Your task to perform on an android device: Open calendar and show me the fourth week of next month Image 0: 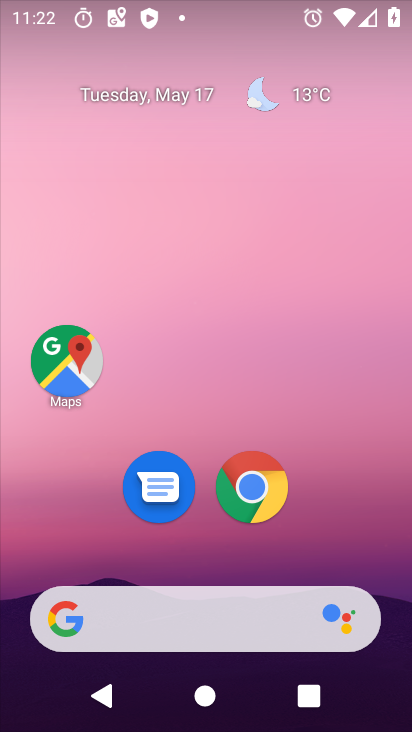
Step 0: drag from (224, 726) to (226, 73)
Your task to perform on an android device: Open calendar and show me the fourth week of next month Image 1: 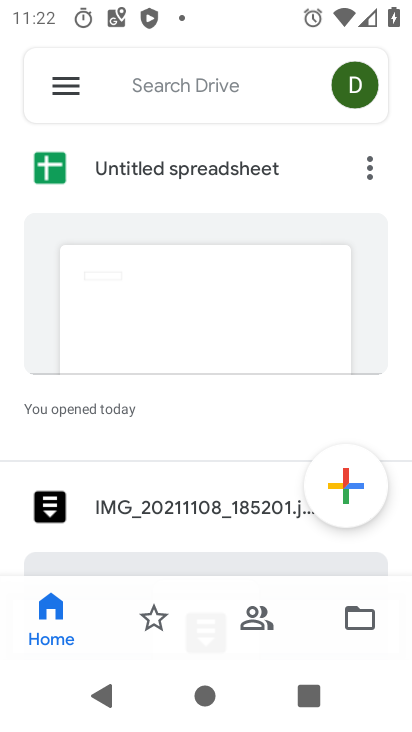
Step 1: press home button
Your task to perform on an android device: Open calendar and show me the fourth week of next month Image 2: 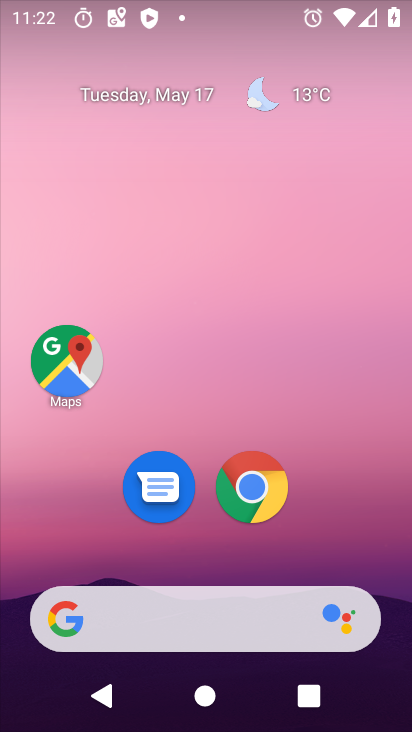
Step 2: drag from (220, 724) to (220, 118)
Your task to perform on an android device: Open calendar and show me the fourth week of next month Image 3: 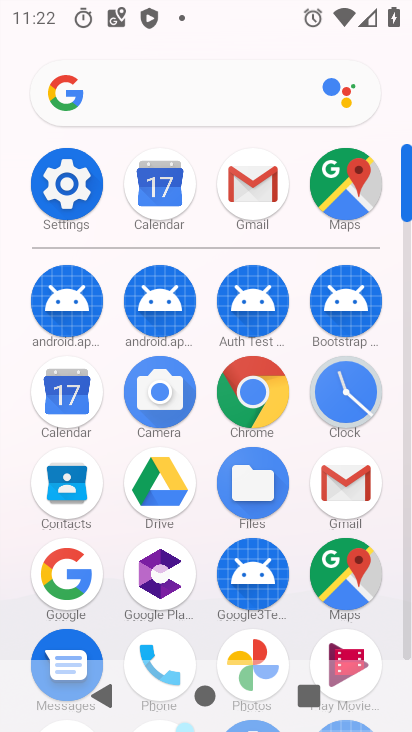
Step 3: click (57, 404)
Your task to perform on an android device: Open calendar and show me the fourth week of next month Image 4: 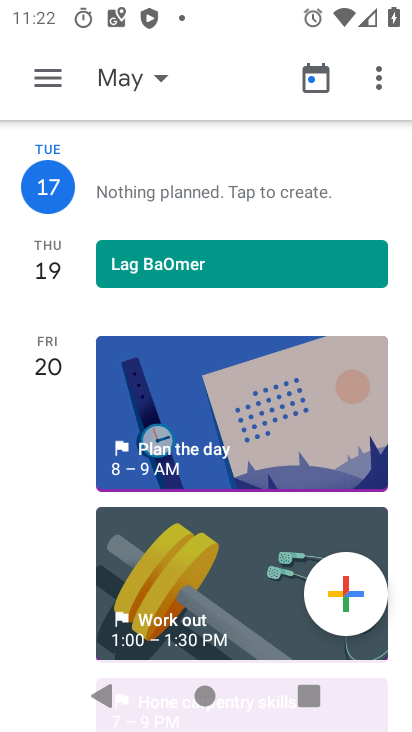
Step 4: click (118, 76)
Your task to perform on an android device: Open calendar and show me the fourth week of next month Image 5: 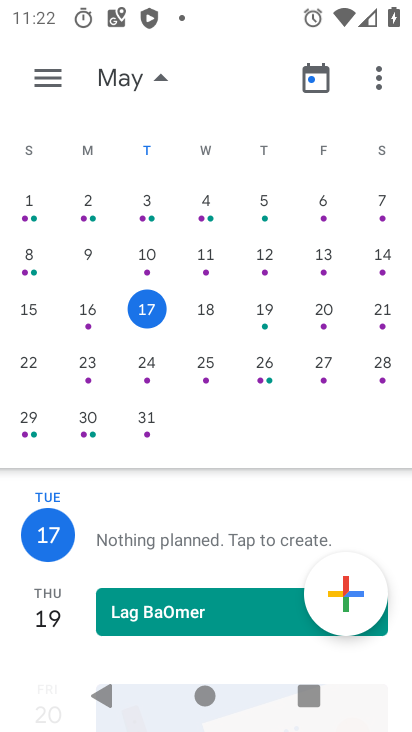
Step 5: drag from (345, 256) to (1, 269)
Your task to perform on an android device: Open calendar and show me the fourth week of next month Image 6: 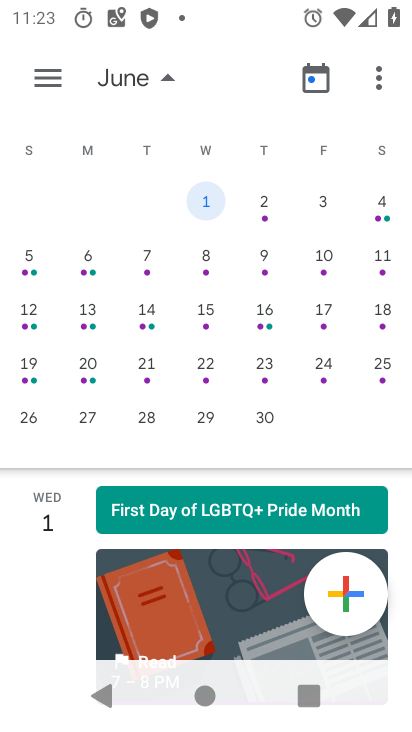
Step 6: click (86, 412)
Your task to perform on an android device: Open calendar and show me the fourth week of next month Image 7: 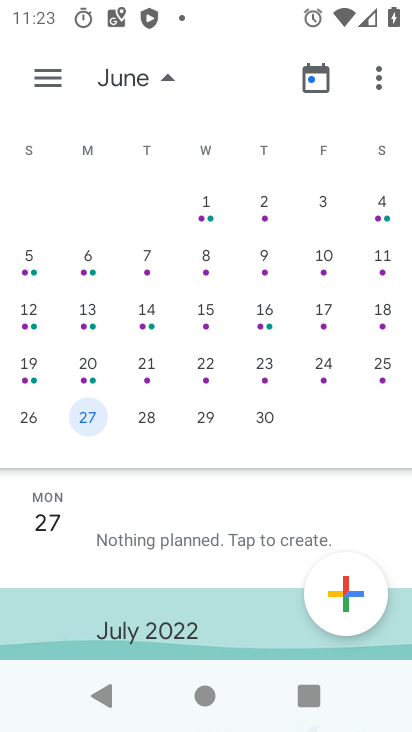
Step 7: click (88, 412)
Your task to perform on an android device: Open calendar and show me the fourth week of next month Image 8: 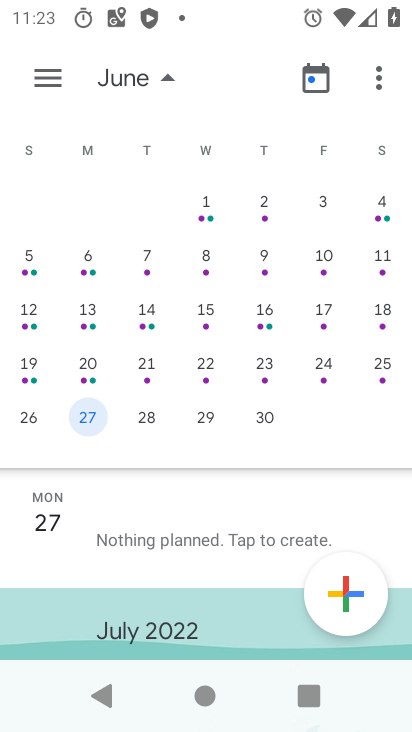
Step 8: click (43, 79)
Your task to perform on an android device: Open calendar and show me the fourth week of next month Image 9: 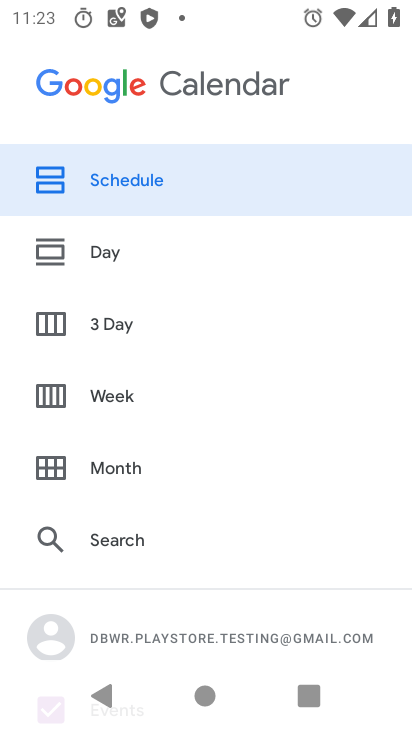
Step 9: click (109, 391)
Your task to perform on an android device: Open calendar and show me the fourth week of next month Image 10: 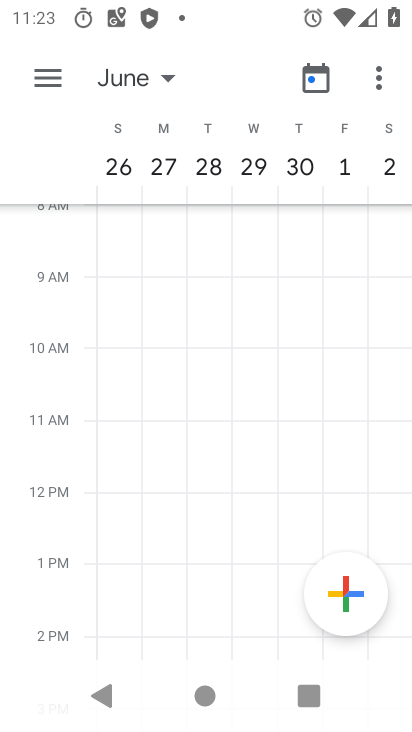
Step 10: task complete